Your task to perform on an android device: delete the emails in spam in the gmail app Image 0: 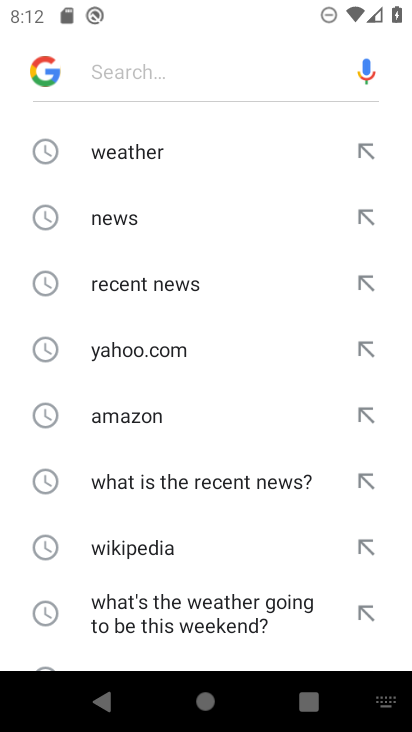
Step 0: press home button
Your task to perform on an android device: delete the emails in spam in the gmail app Image 1: 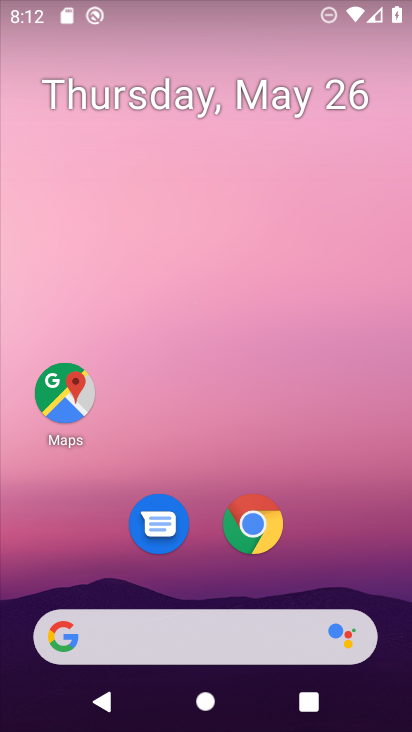
Step 1: drag from (213, 445) to (258, 1)
Your task to perform on an android device: delete the emails in spam in the gmail app Image 2: 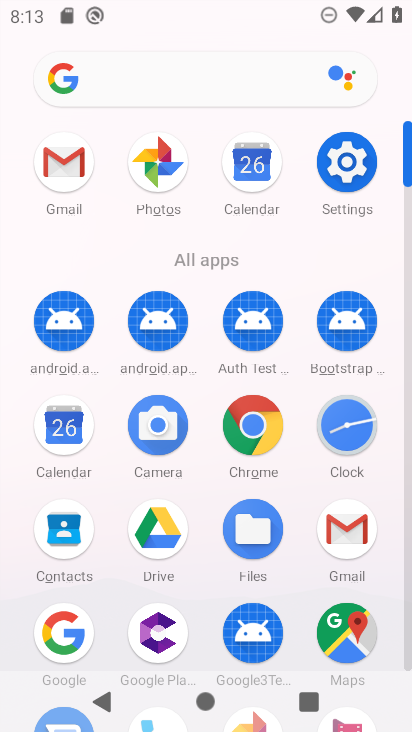
Step 2: click (59, 166)
Your task to perform on an android device: delete the emails in spam in the gmail app Image 3: 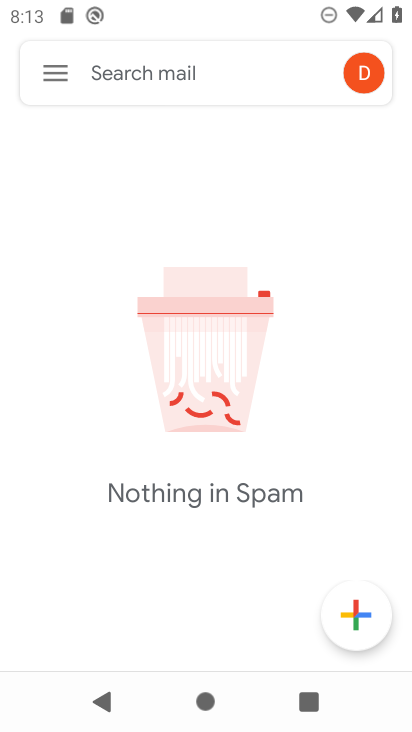
Step 3: task complete